Your task to perform on an android device: Check the weather Image 0: 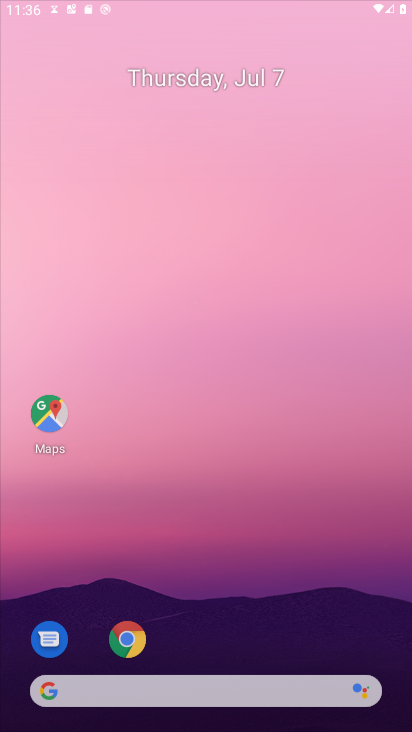
Step 0: press home button
Your task to perform on an android device: Check the weather Image 1: 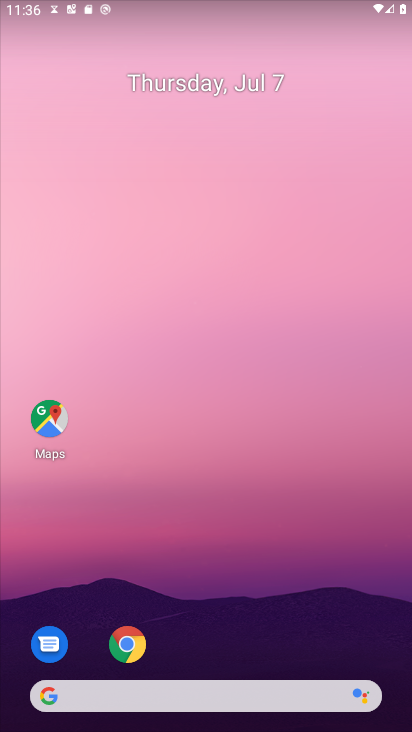
Step 1: click (192, 692)
Your task to perform on an android device: Check the weather Image 2: 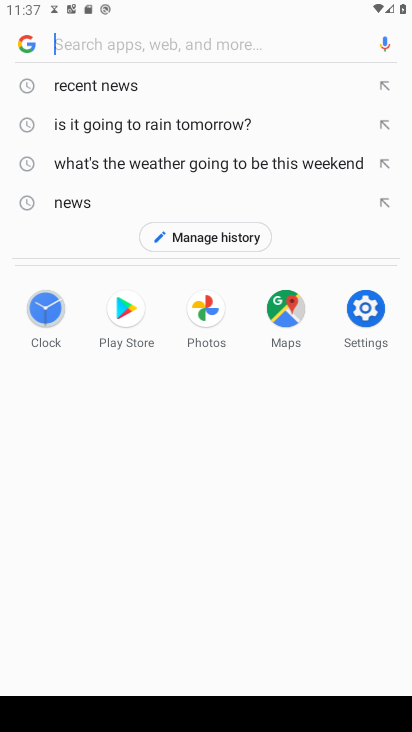
Step 2: type "weather"
Your task to perform on an android device: Check the weather Image 3: 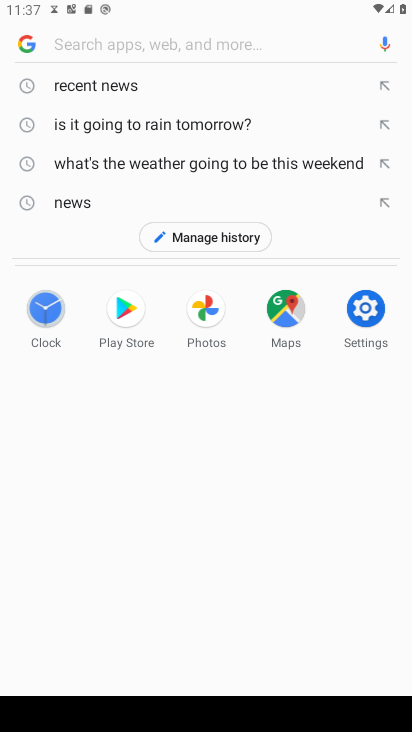
Step 3: click (163, 38)
Your task to perform on an android device: Check the weather Image 4: 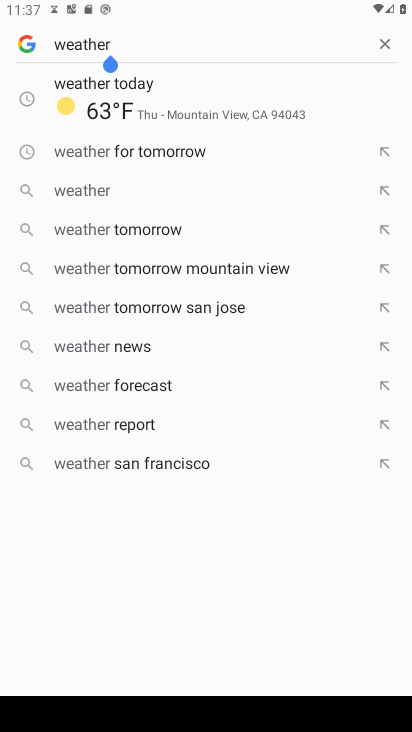
Step 4: click (78, 190)
Your task to perform on an android device: Check the weather Image 5: 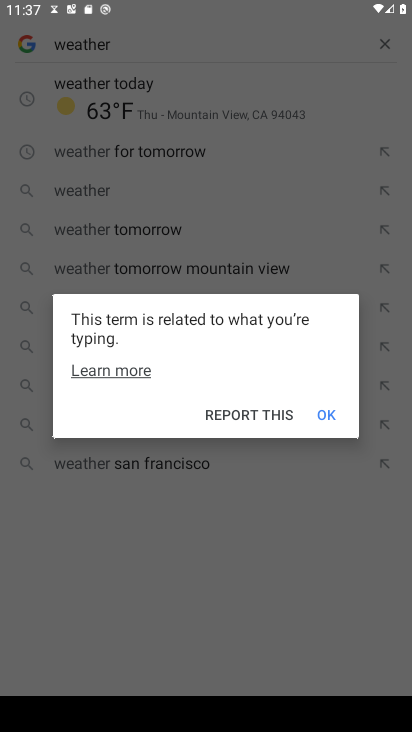
Step 5: click (322, 415)
Your task to perform on an android device: Check the weather Image 6: 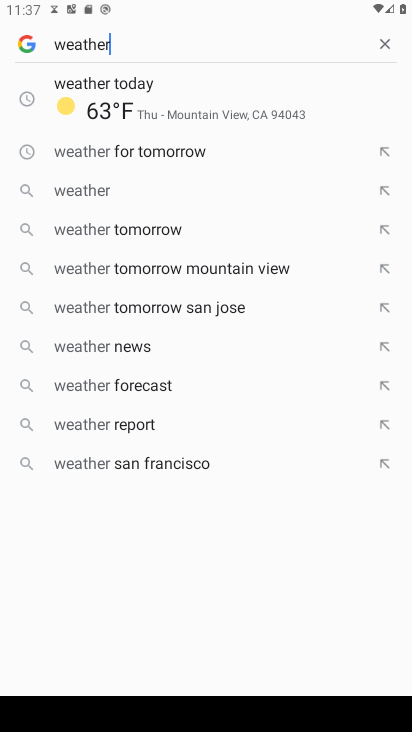
Step 6: click (81, 191)
Your task to perform on an android device: Check the weather Image 7: 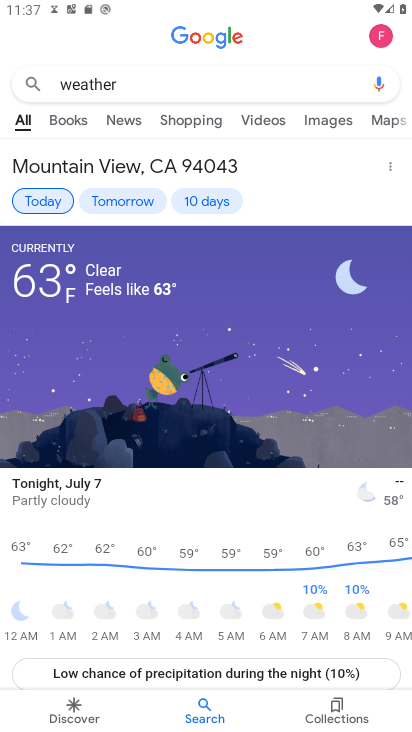
Step 7: task complete